Your task to perform on an android device: open a new tab in the chrome app Image 0: 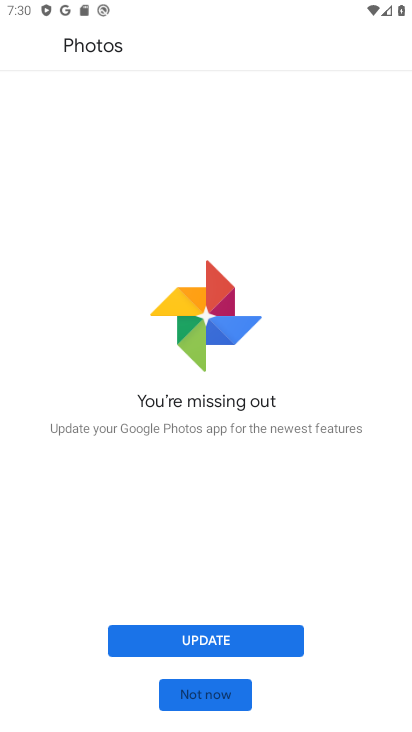
Step 0: press home button
Your task to perform on an android device: open a new tab in the chrome app Image 1: 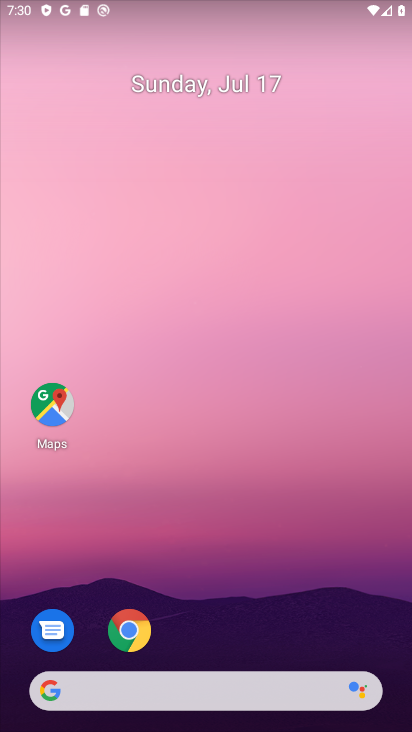
Step 1: click (128, 627)
Your task to perform on an android device: open a new tab in the chrome app Image 2: 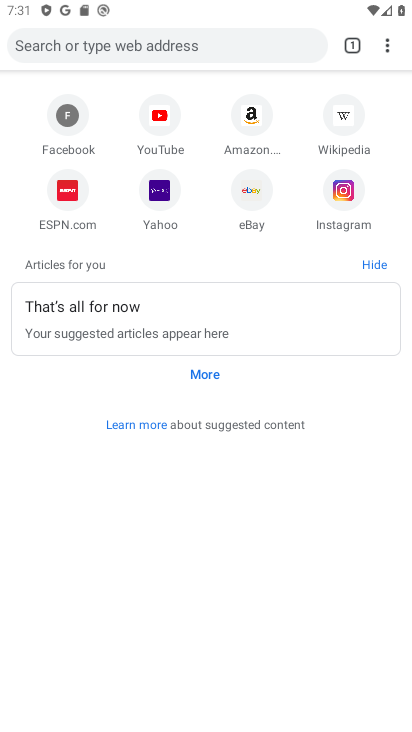
Step 2: click (355, 53)
Your task to perform on an android device: open a new tab in the chrome app Image 3: 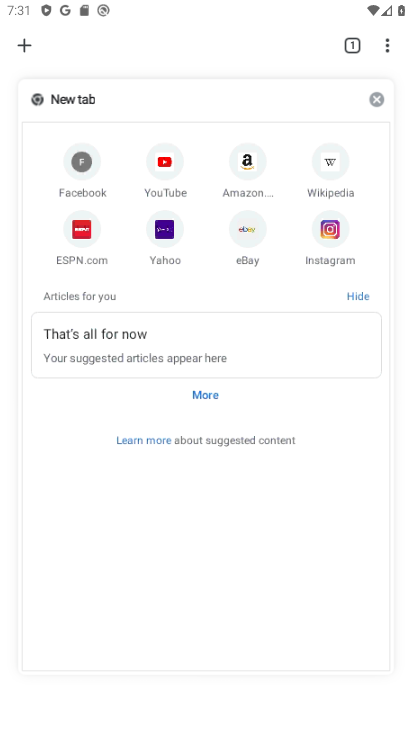
Step 3: click (20, 41)
Your task to perform on an android device: open a new tab in the chrome app Image 4: 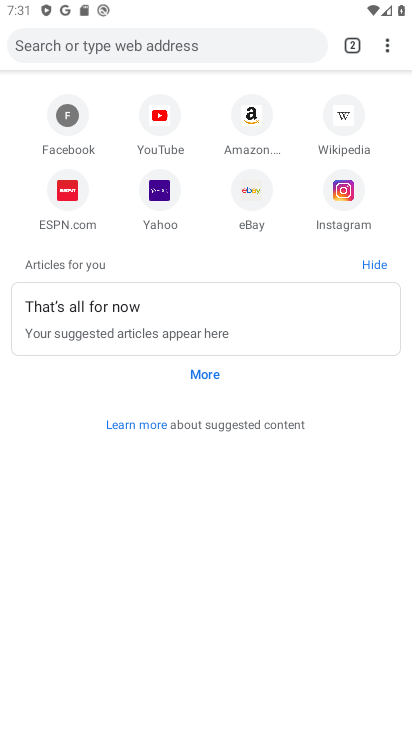
Step 4: task complete